Your task to perform on an android device: Go to Google maps Image 0: 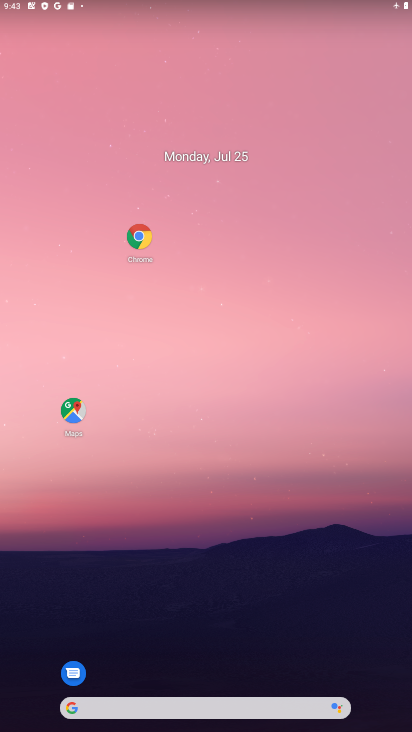
Step 0: click (83, 434)
Your task to perform on an android device: Go to Google maps Image 1: 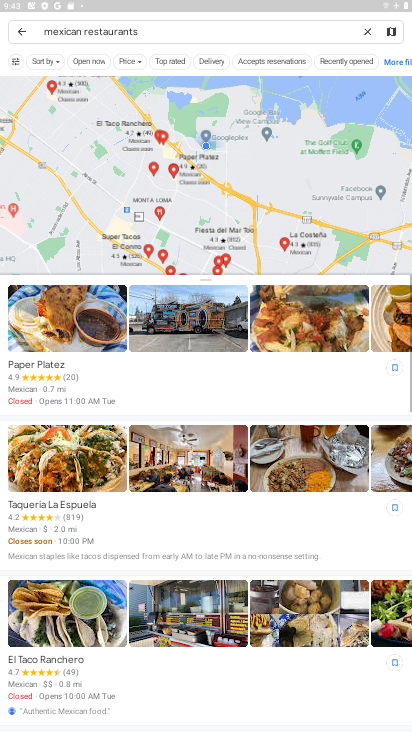
Step 1: task complete